Your task to perform on an android device: What's on my calendar today? Image 0: 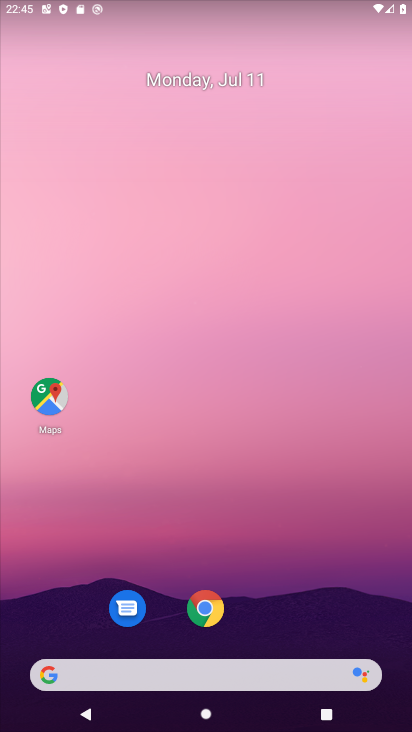
Step 0: drag from (18, 699) to (387, 61)
Your task to perform on an android device: What's on my calendar today? Image 1: 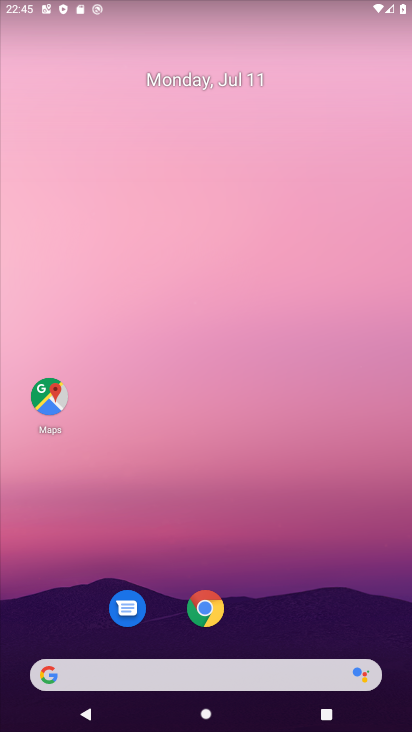
Step 1: drag from (23, 704) to (171, 64)
Your task to perform on an android device: What's on my calendar today? Image 2: 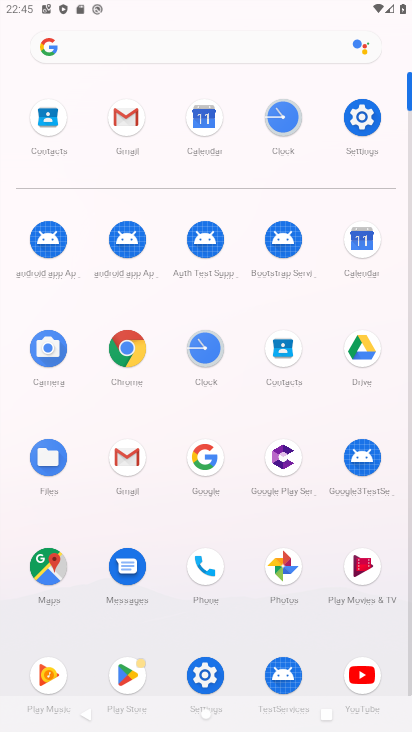
Step 2: click (363, 246)
Your task to perform on an android device: What's on my calendar today? Image 3: 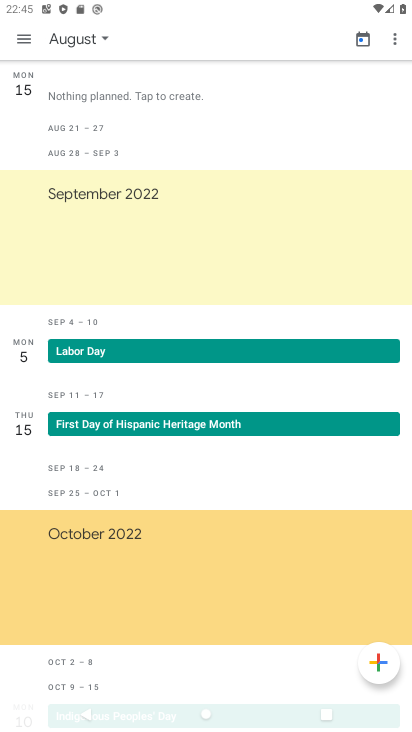
Step 3: click (67, 39)
Your task to perform on an android device: What's on my calendar today? Image 4: 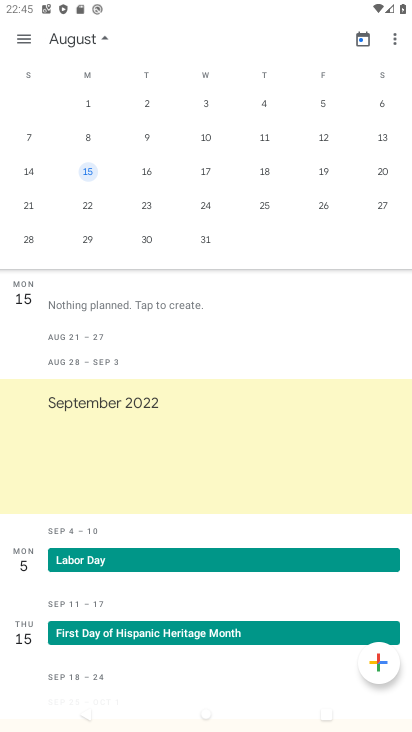
Step 4: drag from (2, 125) to (323, 130)
Your task to perform on an android device: What's on my calendar today? Image 5: 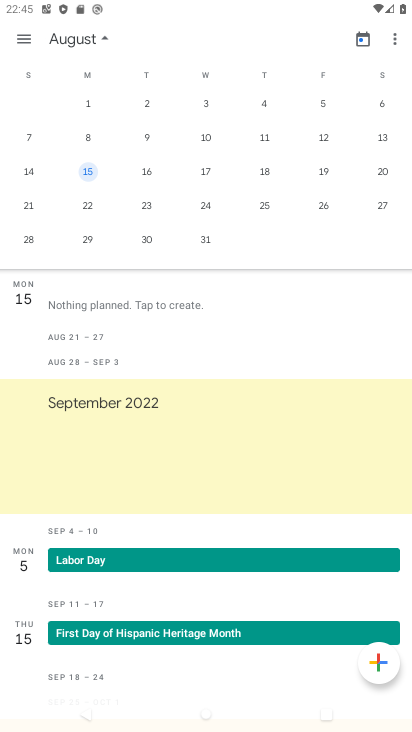
Step 5: click (291, 115)
Your task to perform on an android device: What's on my calendar today? Image 6: 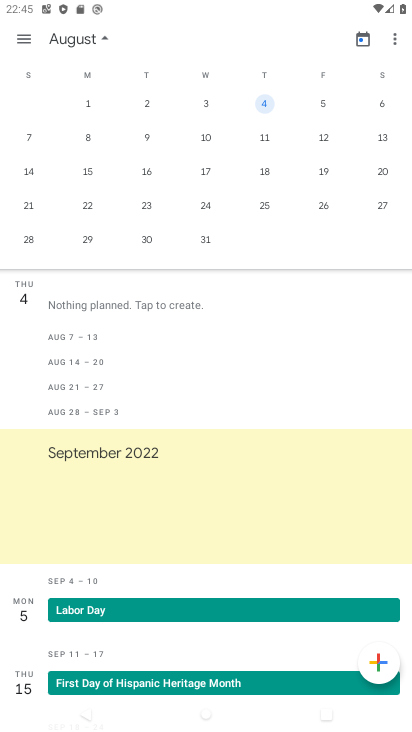
Step 6: drag from (11, 168) to (377, 238)
Your task to perform on an android device: What's on my calendar today? Image 7: 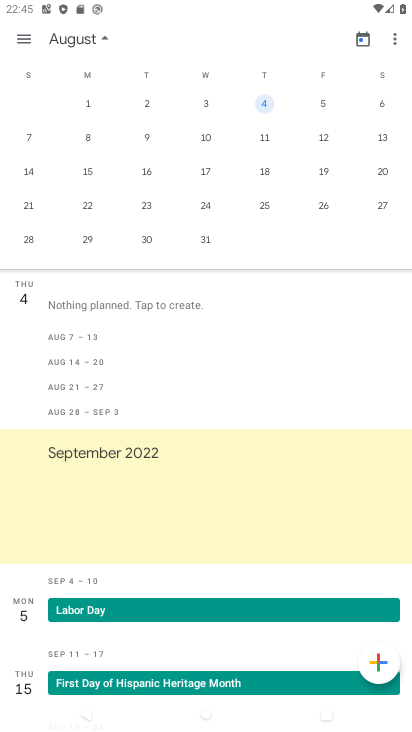
Step 7: click (373, 95)
Your task to perform on an android device: What's on my calendar today? Image 8: 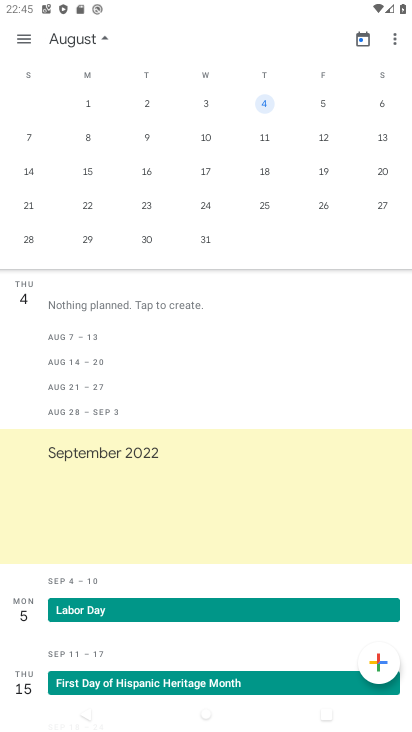
Step 8: click (77, 32)
Your task to perform on an android device: What's on my calendar today? Image 9: 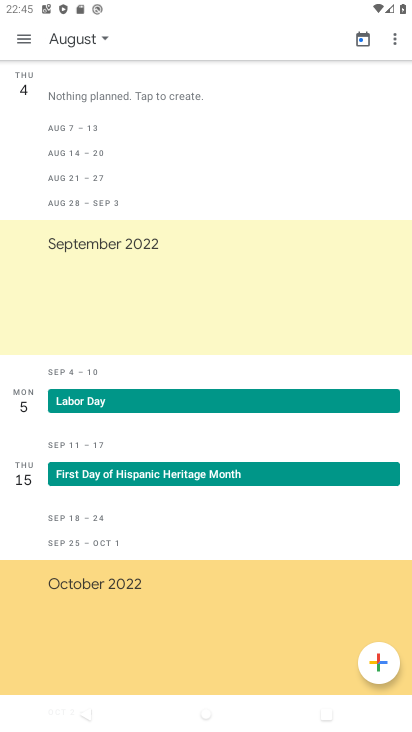
Step 9: click (104, 34)
Your task to perform on an android device: What's on my calendar today? Image 10: 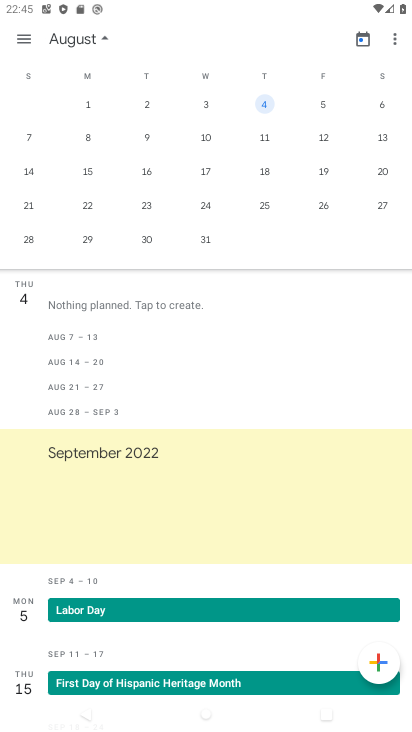
Step 10: click (105, 39)
Your task to perform on an android device: What's on my calendar today? Image 11: 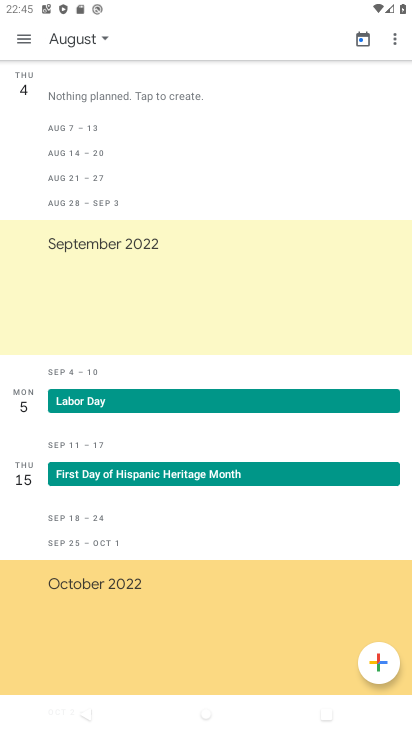
Step 11: click (71, 46)
Your task to perform on an android device: What's on my calendar today? Image 12: 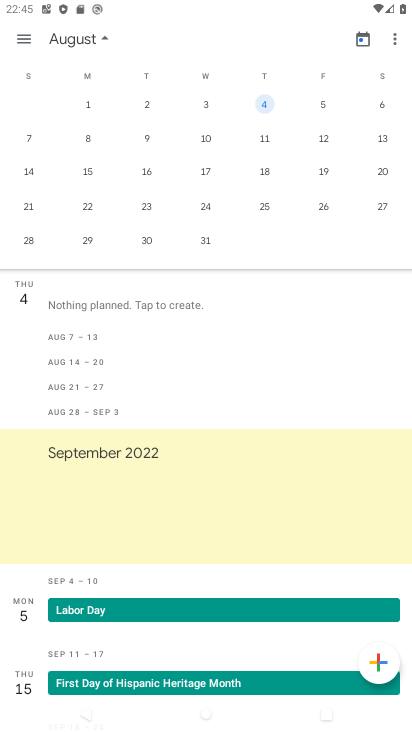
Step 12: drag from (10, 103) to (333, 172)
Your task to perform on an android device: What's on my calendar today? Image 13: 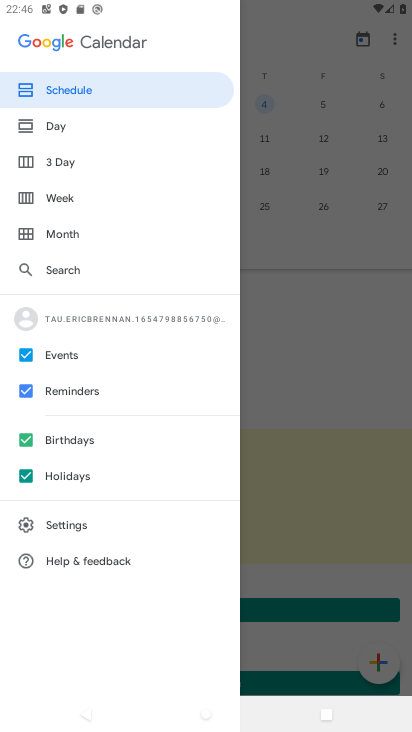
Step 13: click (327, 283)
Your task to perform on an android device: What's on my calendar today? Image 14: 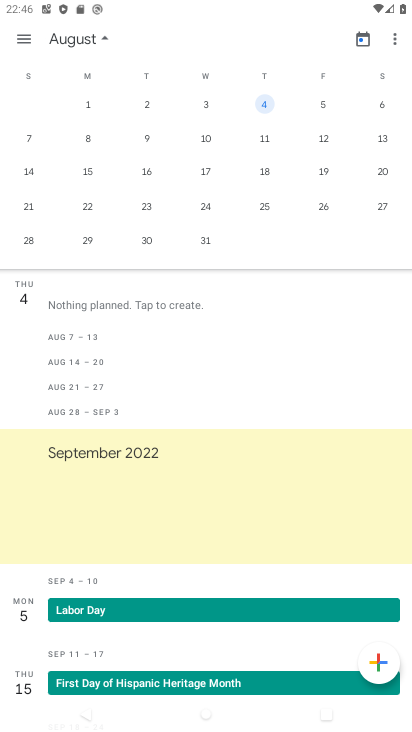
Step 14: task complete